Your task to perform on an android device: Go to eBay Image 0: 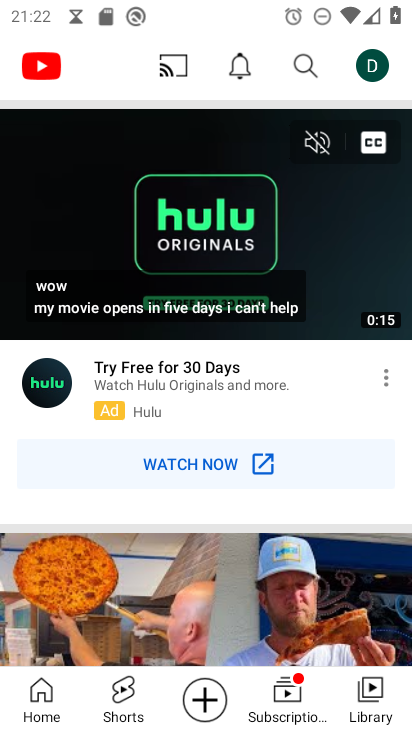
Step 0: press home button
Your task to perform on an android device: Go to eBay Image 1: 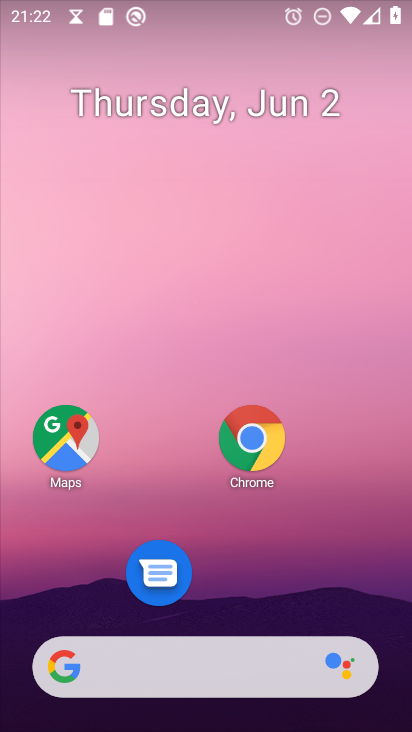
Step 1: click (251, 451)
Your task to perform on an android device: Go to eBay Image 2: 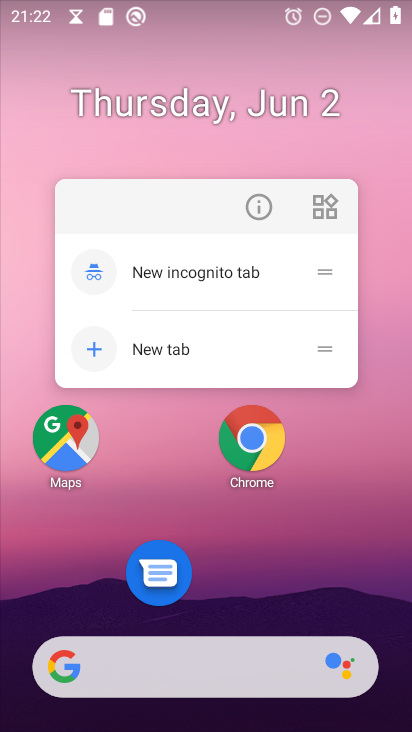
Step 2: click (249, 444)
Your task to perform on an android device: Go to eBay Image 3: 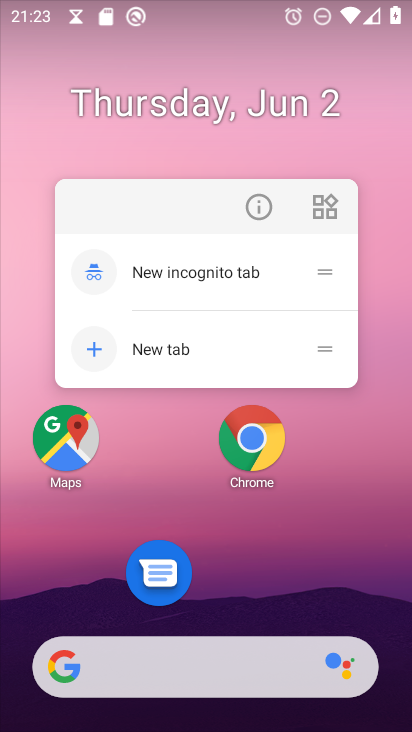
Step 3: click (249, 448)
Your task to perform on an android device: Go to eBay Image 4: 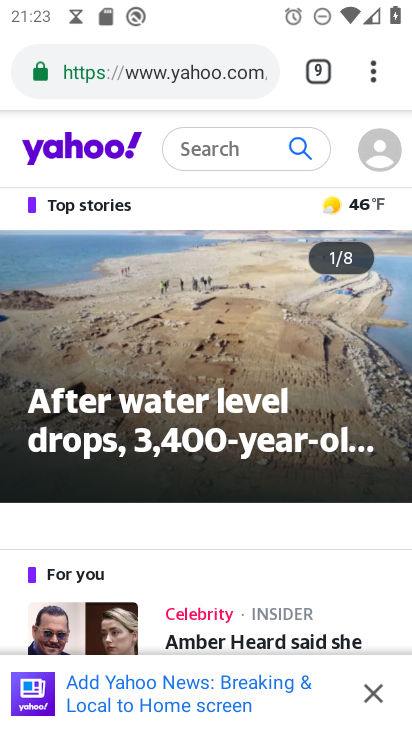
Step 4: drag from (371, 68) to (202, 146)
Your task to perform on an android device: Go to eBay Image 5: 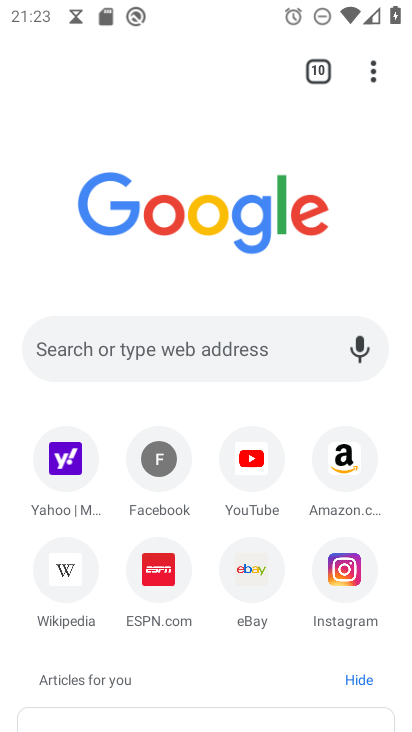
Step 5: click (253, 579)
Your task to perform on an android device: Go to eBay Image 6: 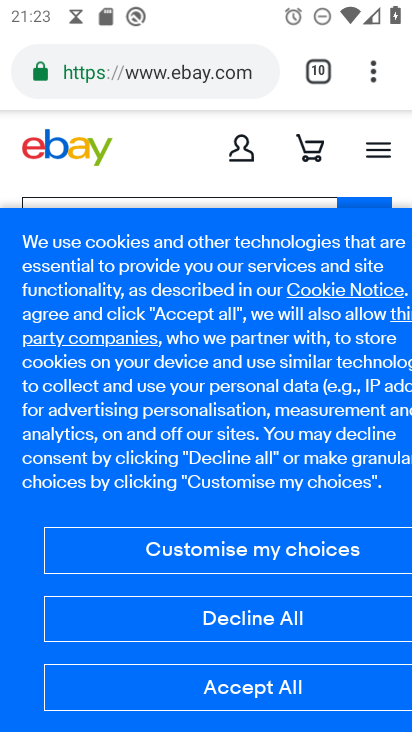
Step 6: click (237, 686)
Your task to perform on an android device: Go to eBay Image 7: 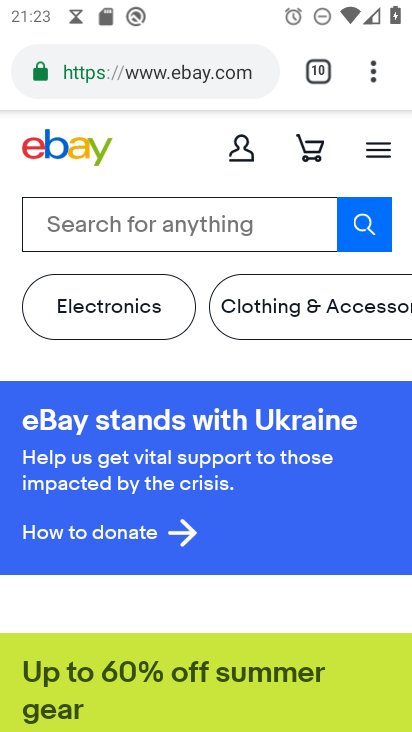
Step 7: task complete